Your task to perform on an android device: allow cookies in the chrome app Image 0: 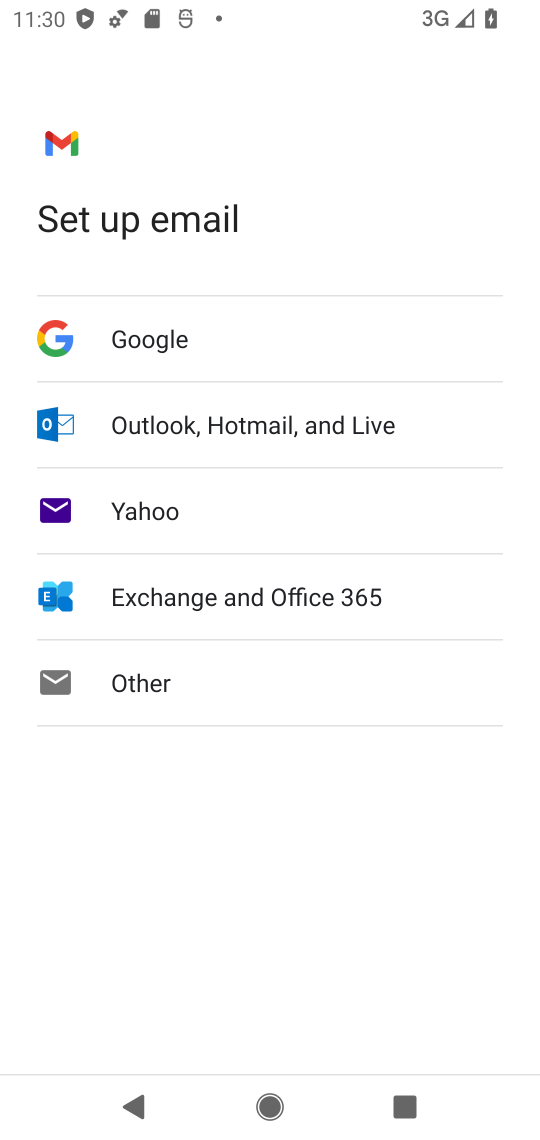
Step 0: press home button
Your task to perform on an android device: allow cookies in the chrome app Image 1: 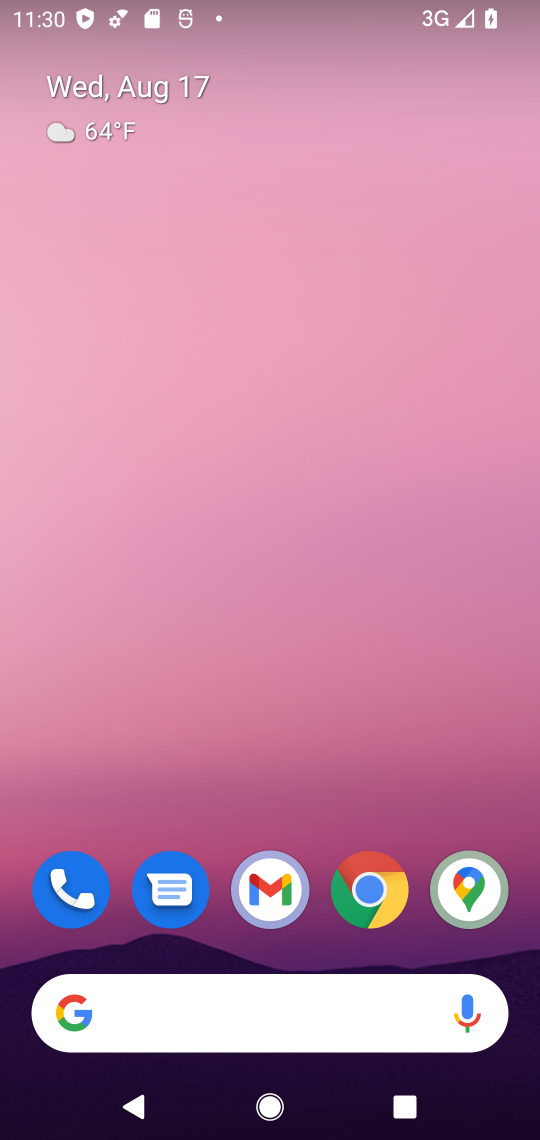
Step 1: click (373, 881)
Your task to perform on an android device: allow cookies in the chrome app Image 2: 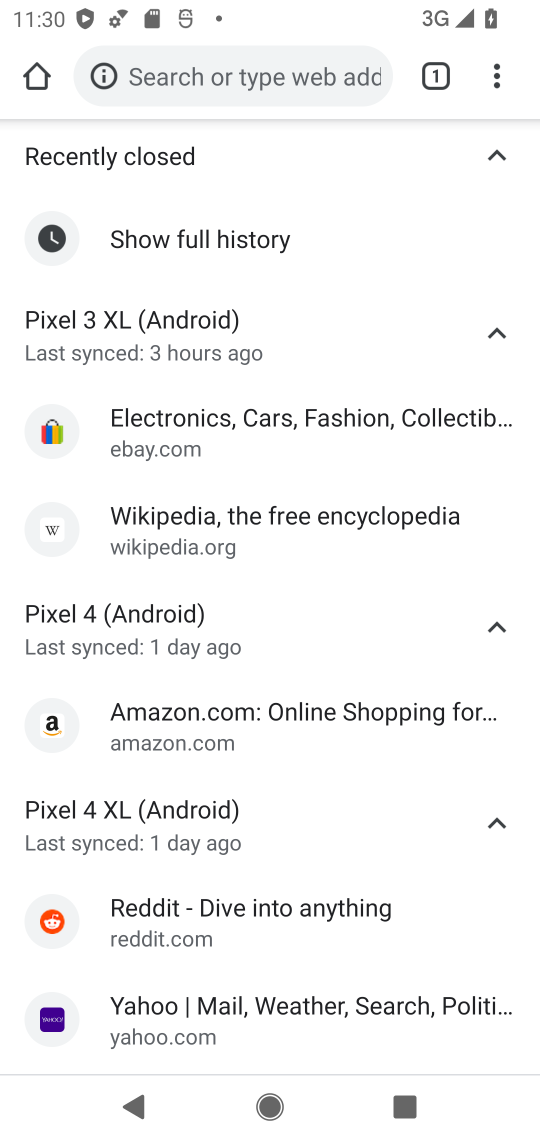
Step 2: click (491, 78)
Your task to perform on an android device: allow cookies in the chrome app Image 3: 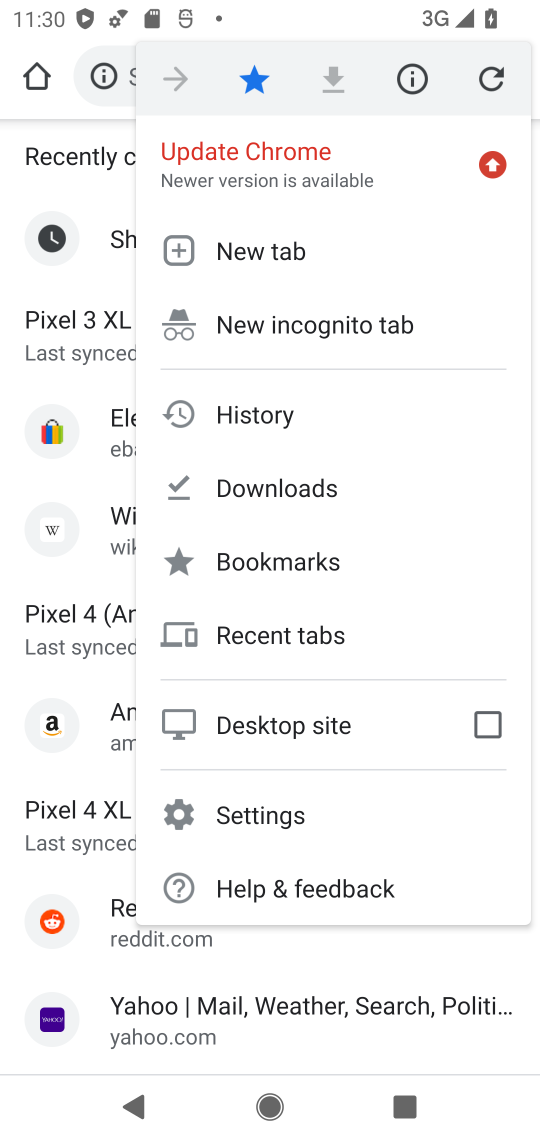
Step 3: click (280, 805)
Your task to perform on an android device: allow cookies in the chrome app Image 4: 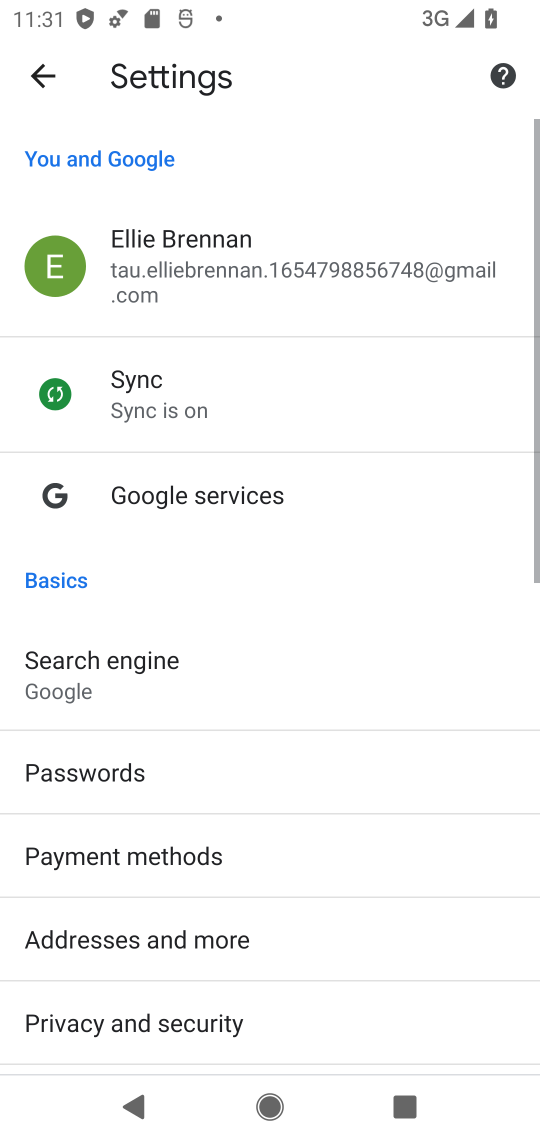
Step 4: drag from (310, 894) to (412, 43)
Your task to perform on an android device: allow cookies in the chrome app Image 5: 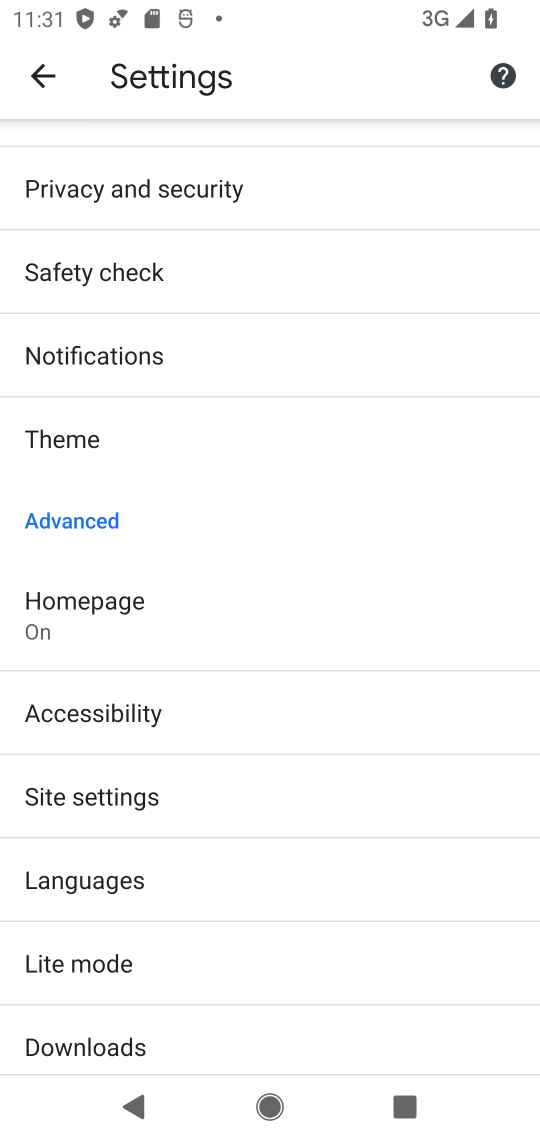
Step 5: click (158, 806)
Your task to perform on an android device: allow cookies in the chrome app Image 6: 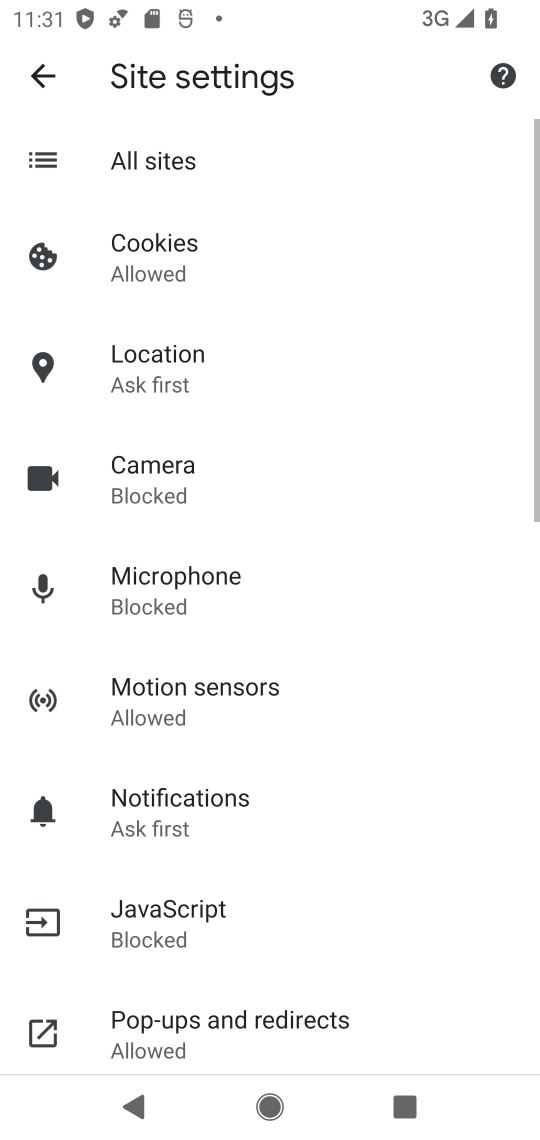
Step 6: click (181, 253)
Your task to perform on an android device: allow cookies in the chrome app Image 7: 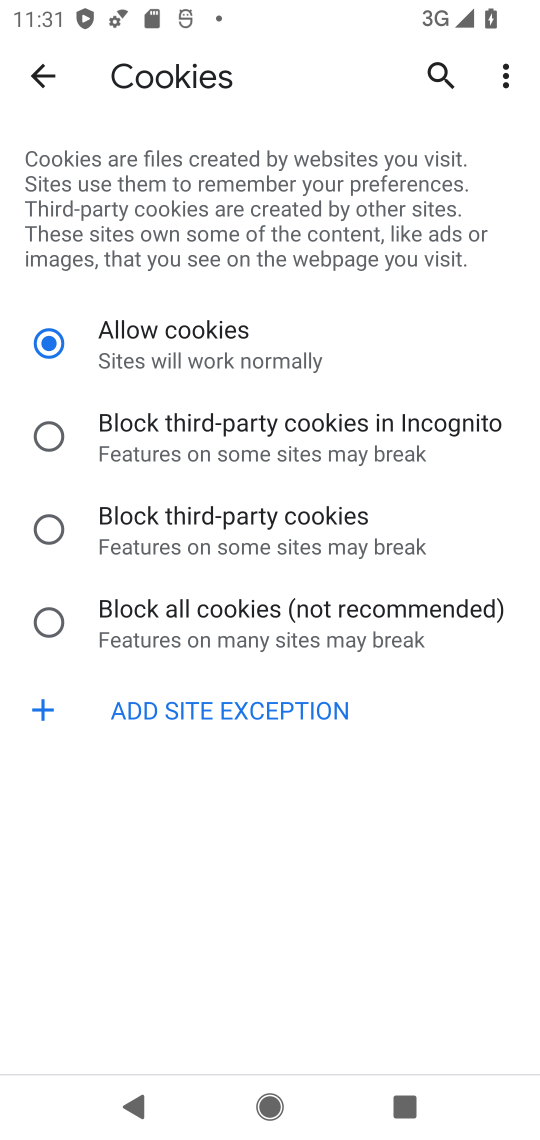
Step 7: task complete